Your task to perform on an android device: Go to ESPN.com Image 0: 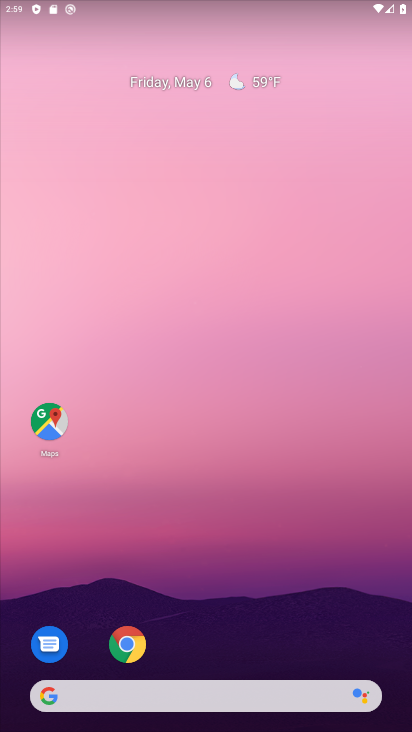
Step 0: click (124, 646)
Your task to perform on an android device: Go to ESPN.com Image 1: 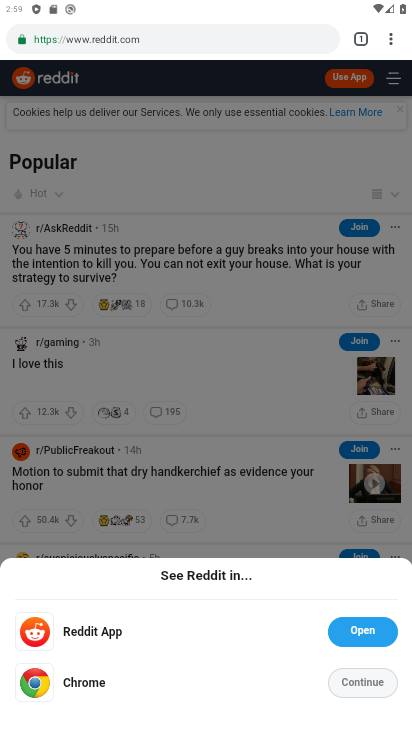
Step 1: drag from (390, 39) to (290, 77)
Your task to perform on an android device: Go to ESPN.com Image 2: 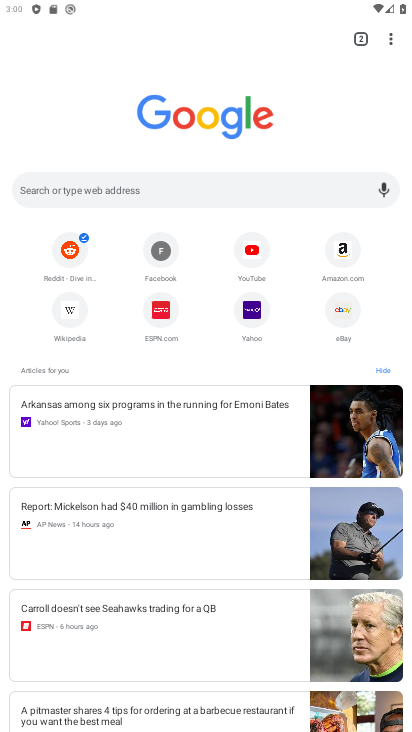
Step 2: click (201, 189)
Your task to perform on an android device: Go to ESPN.com Image 3: 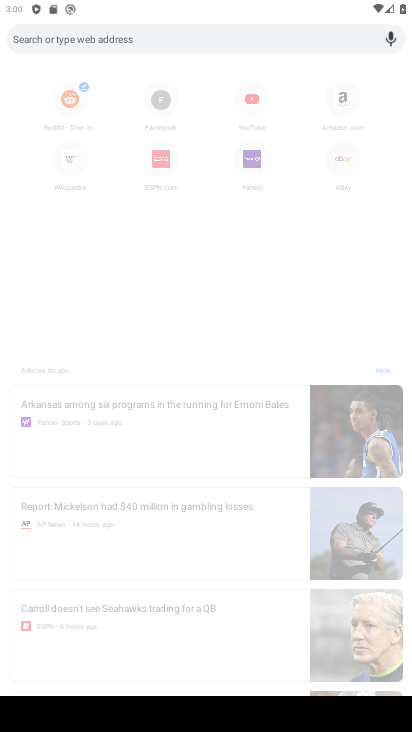
Step 3: type "ESPN.com"
Your task to perform on an android device: Go to ESPN.com Image 4: 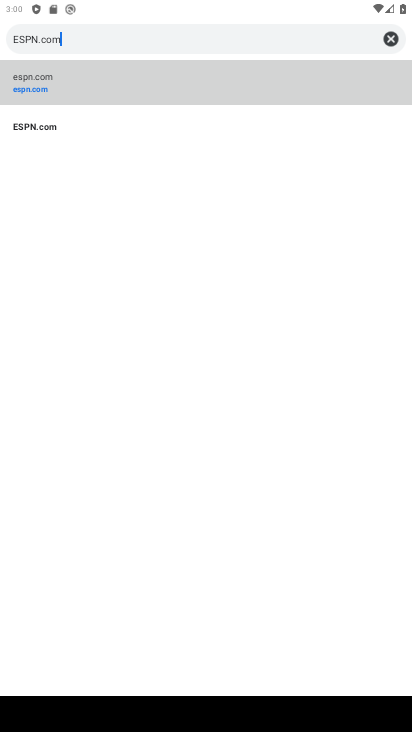
Step 4: type ""
Your task to perform on an android device: Go to ESPN.com Image 5: 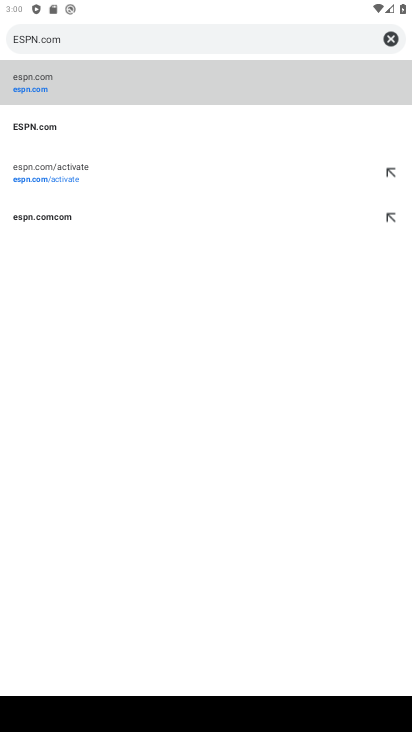
Step 5: click (35, 76)
Your task to perform on an android device: Go to ESPN.com Image 6: 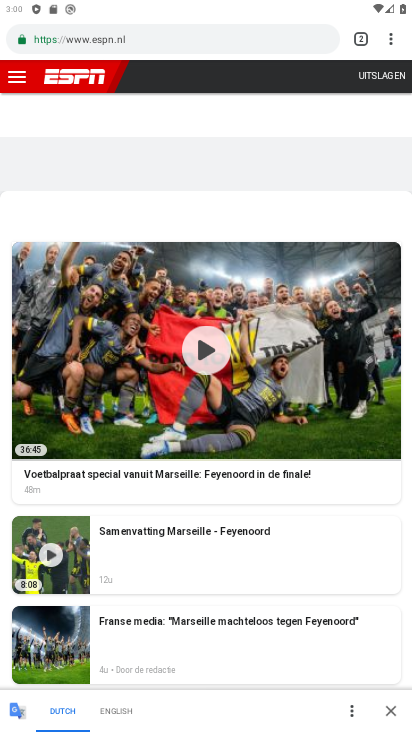
Step 6: task complete